Your task to perform on an android device: Show me recent news Image 0: 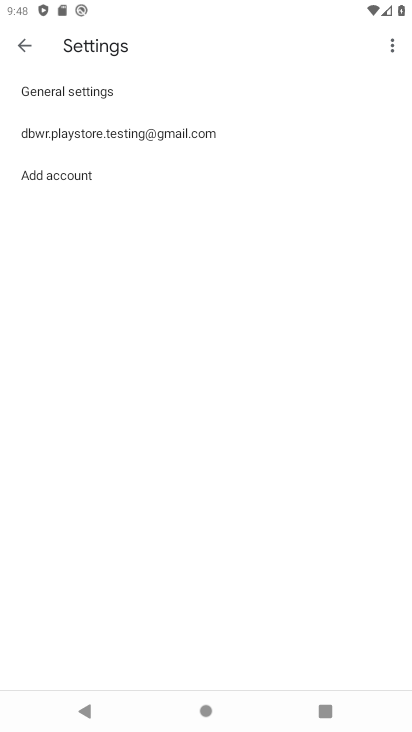
Step 0: press home button
Your task to perform on an android device: Show me recent news Image 1: 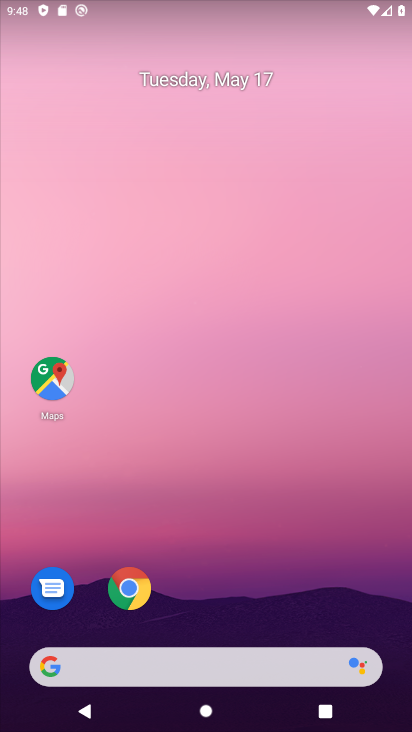
Step 1: task complete